Your task to perform on an android device: turn off location Image 0: 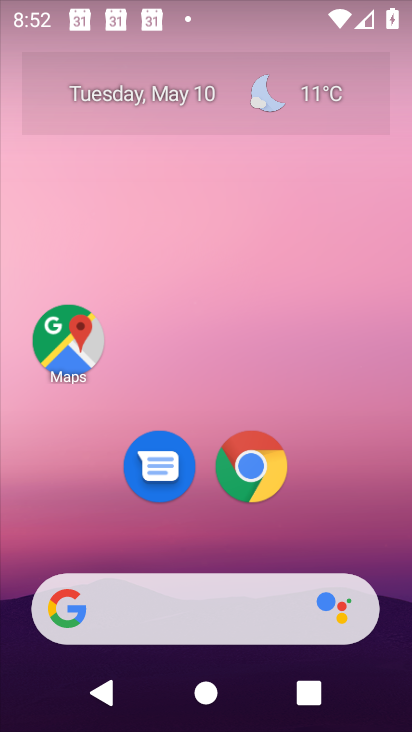
Step 0: drag from (208, 543) to (309, 63)
Your task to perform on an android device: turn off location Image 1: 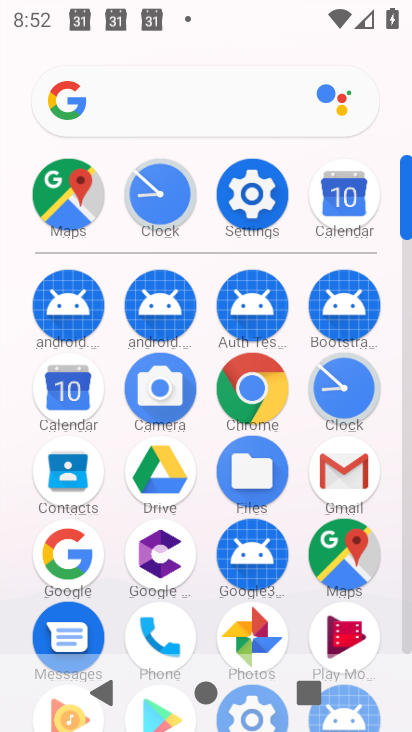
Step 1: click (246, 184)
Your task to perform on an android device: turn off location Image 2: 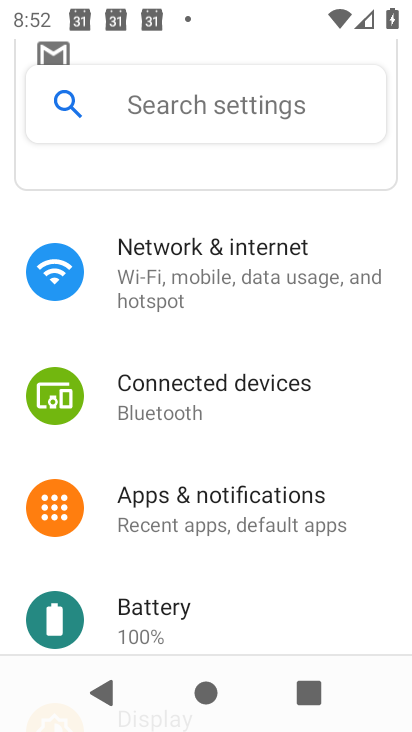
Step 2: drag from (208, 563) to (278, 204)
Your task to perform on an android device: turn off location Image 3: 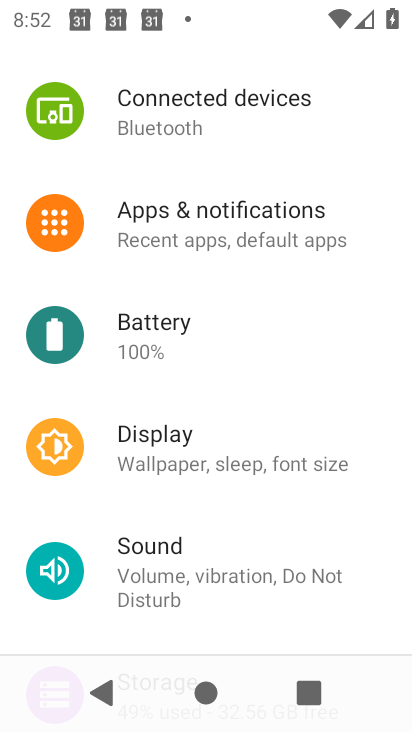
Step 3: drag from (237, 548) to (255, 268)
Your task to perform on an android device: turn off location Image 4: 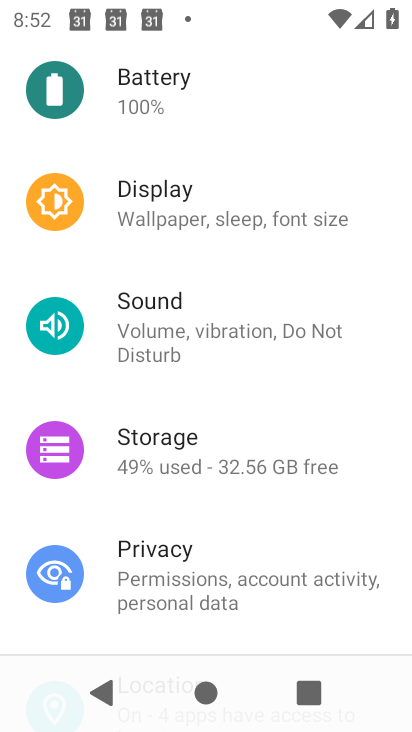
Step 4: drag from (185, 501) to (244, 122)
Your task to perform on an android device: turn off location Image 5: 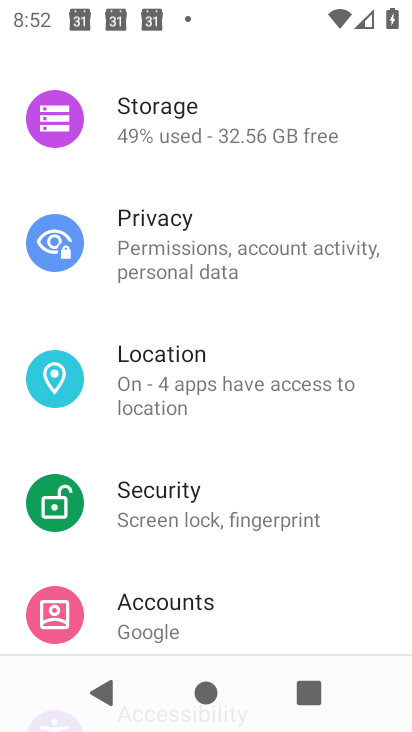
Step 5: click (200, 385)
Your task to perform on an android device: turn off location Image 6: 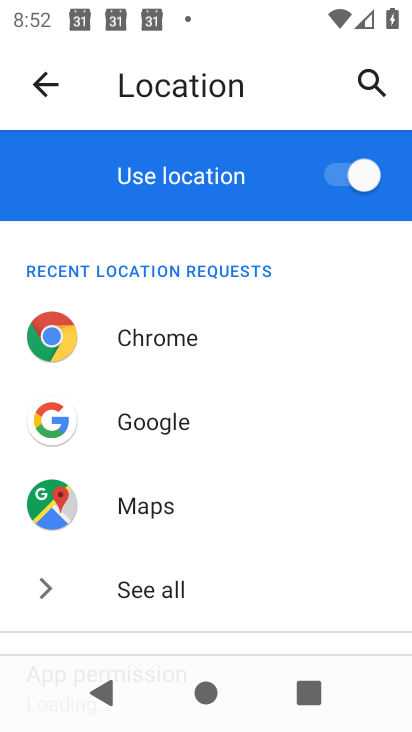
Step 6: click (310, 183)
Your task to perform on an android device: turn off location Image 7: 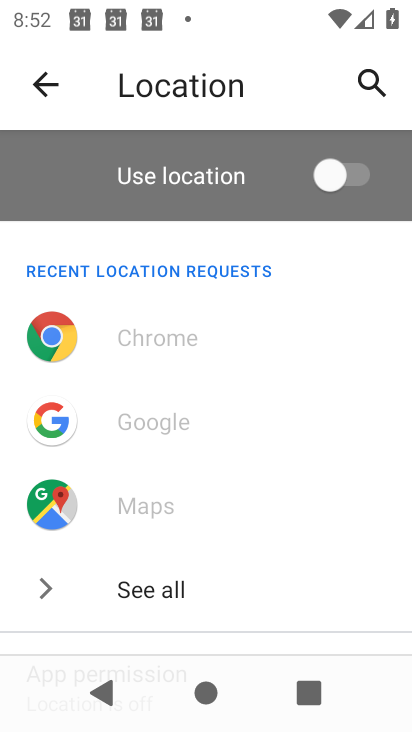
Step 7: task complete